Your task to perform on an android device: Open Yahoo.com Image 0: 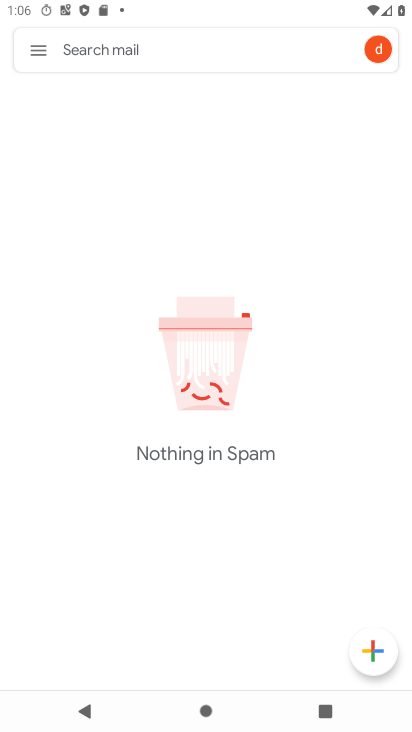
Step 0: press home button
Your task to perform on an android device: Open Yahoo.com Image 1: 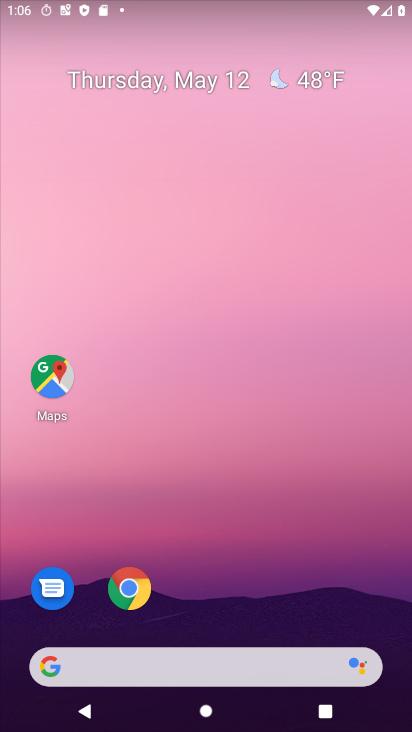
Step 1: drag from (213, 579) to (239, 134)
Your task to perform on an android device: Open Yahoo.com Image 2: 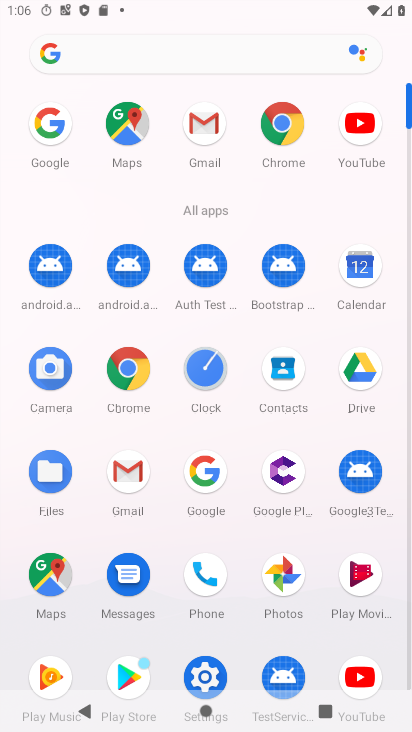
Step 2: click (129, 371)
Your task to perform on an android device: Open Yahoo.com Image 3: 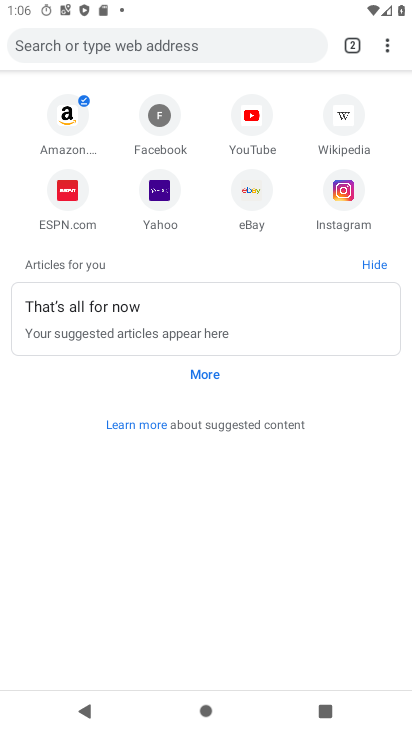
Step 3: click (163, 191)
Your task to perform on an android device: Open Yahoo.com Image 4: 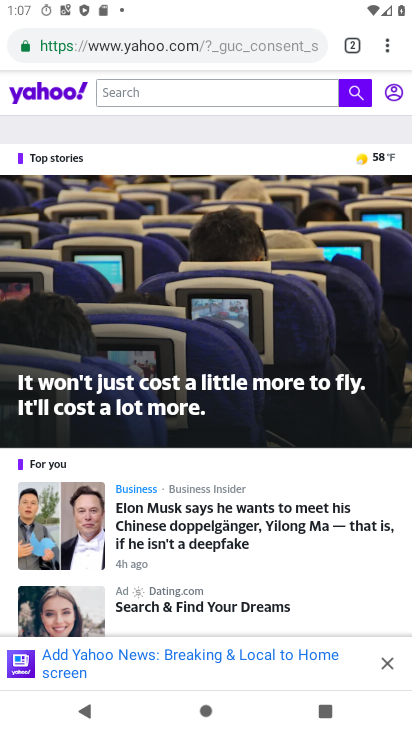
Step 4: task complete